Your task to perform on an android device: set an alarm Image 0: 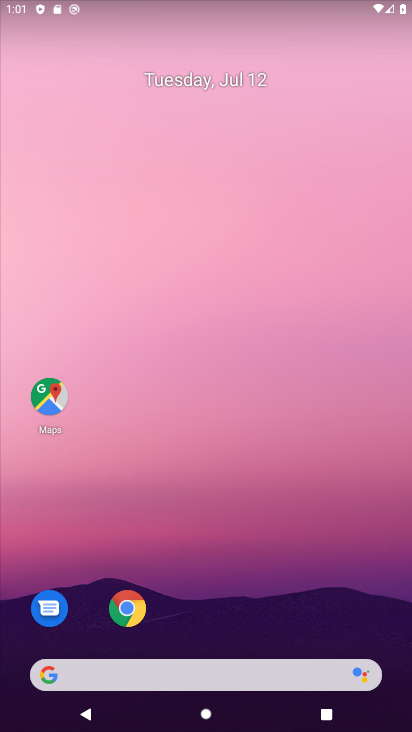
Step 0: drag from (236, 437) to (236, 287)
Your task to perform on an android device: set an alarm Image 1: 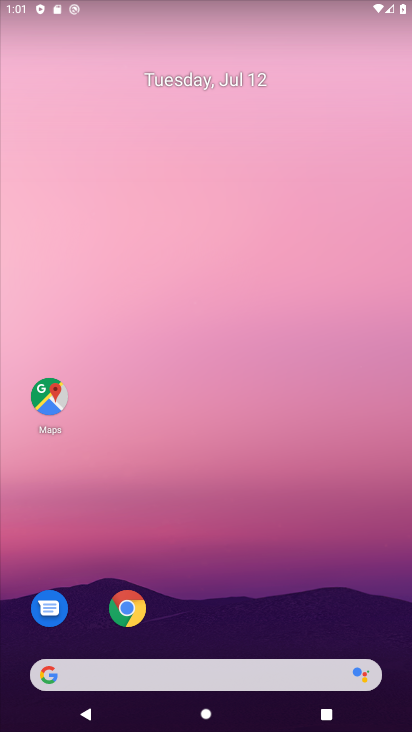
Step 1: drag from (171, 431) to (167, 199)
Your task to perform on an android device: set an alarm Image 2: 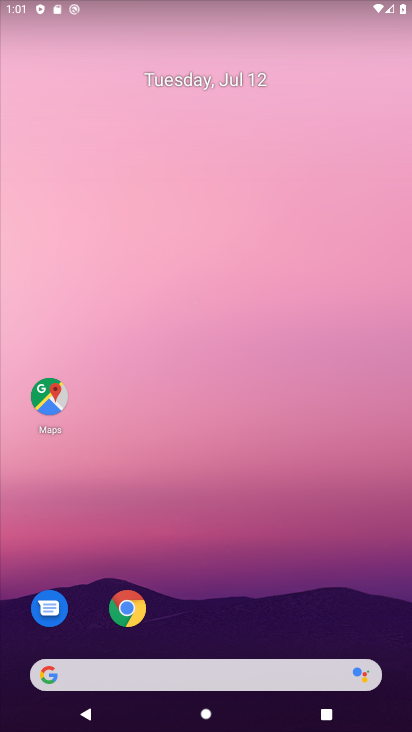
Step 2: drag from (185, 659) to (185, 209)
Your task to perform on an android device: set an alarm Image 3: 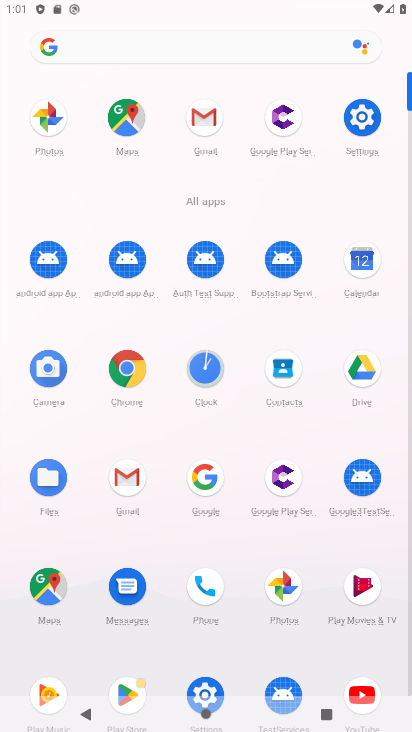
Step 3: click (214, 370)
Your task to perform on an android device: set an alarm Image 4: 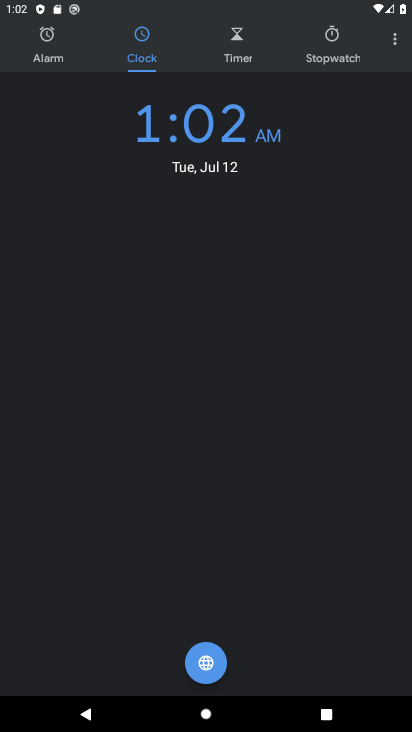
Step 4: click (55, 48)
Your task to perform on an android device: set an alarm Image 5: 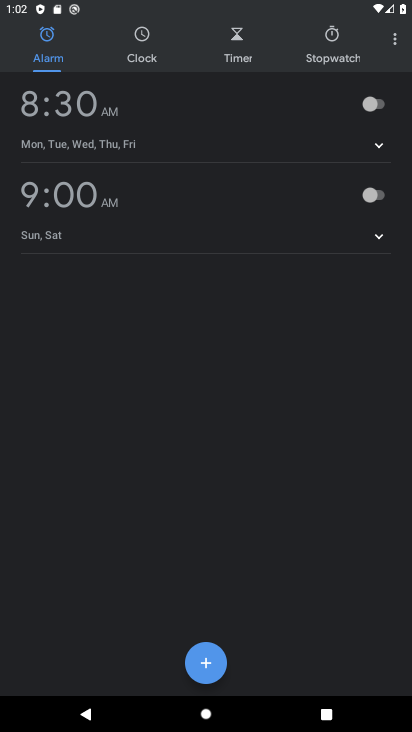
Step 5: click (208, 671)
Your task to perform on an android device: set an alarm Image 6: 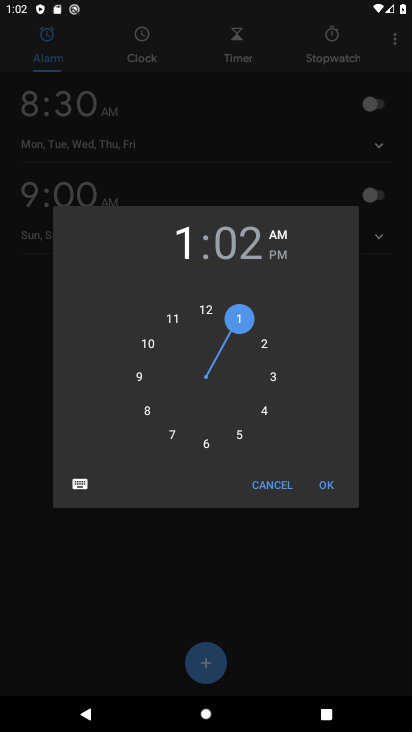
Step 6: click (202, 446)
Your task to perform on an android device: set an alarm Image 7: 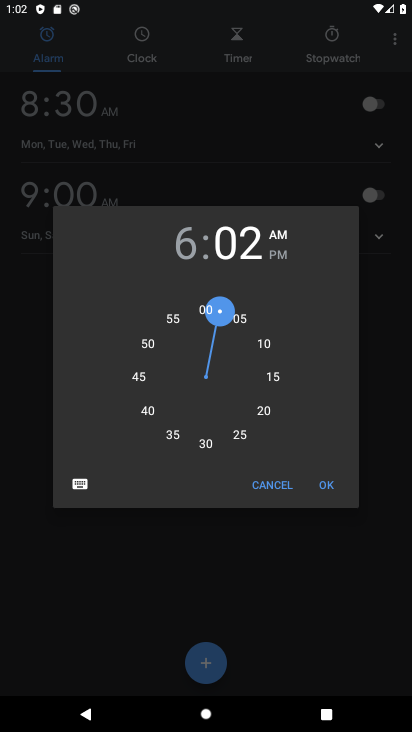
Step 7: click (204, 309)
Your task to perform on an android device: set an alarm Image 8: 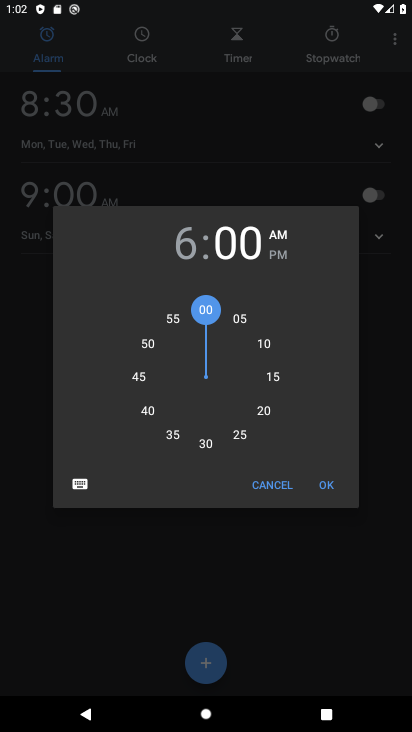
Step 8: click (322, 487)
Your task to perform on an android device: set an alarm Image 9: 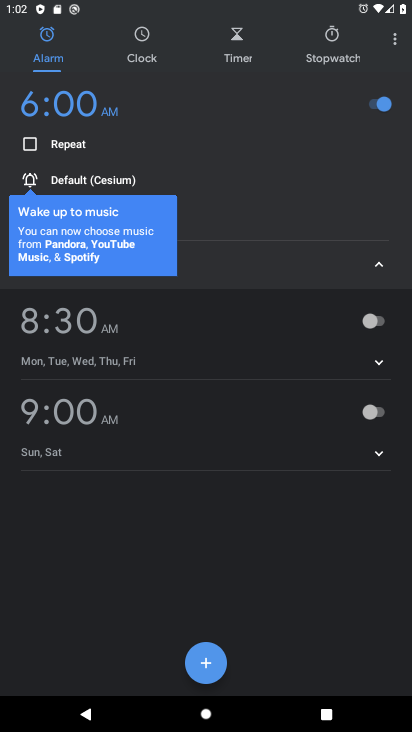
Step 9: task complete